Your task to perform on an android device: Open Google Maps and go to "Timeline" Image 0: 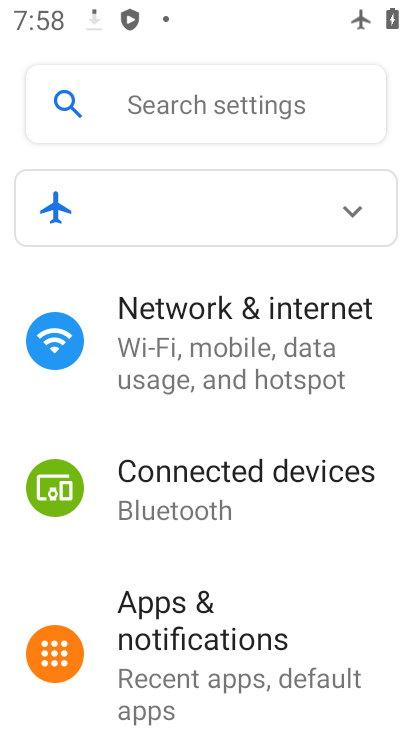
Step 0: press home button
Your task to perform on an android device: Open Google Maps and go to "Timeline" Image 1: 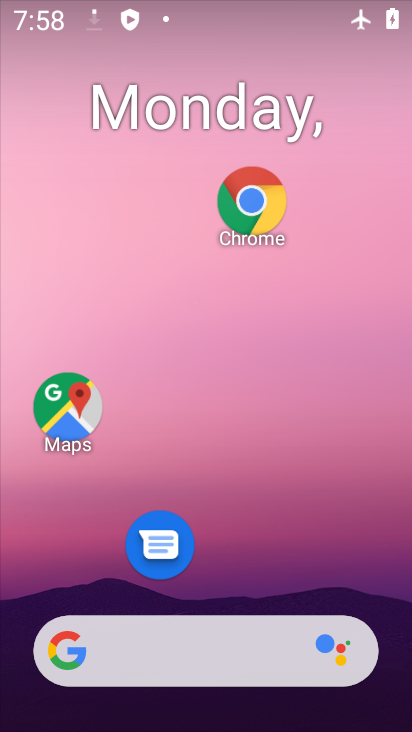
Step 1: click (76, 426)
Your task to perform on an android device: Open Google Maps and go to "Timeline" Image 2: 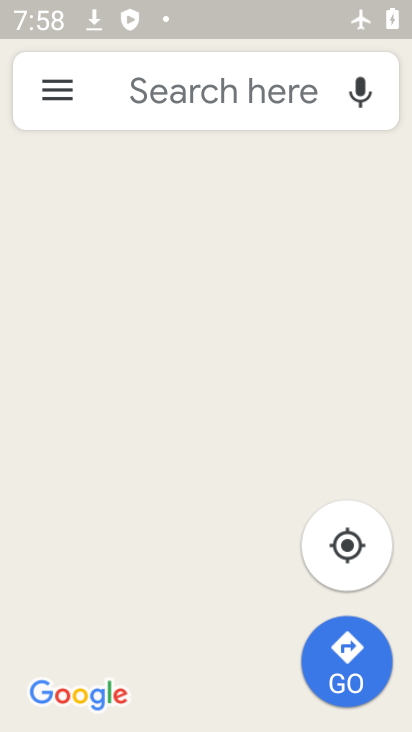
Step 2: click (62, 82)
Your task to perform on an android device: Open Google Maps and go to "Timeline" Image 3: 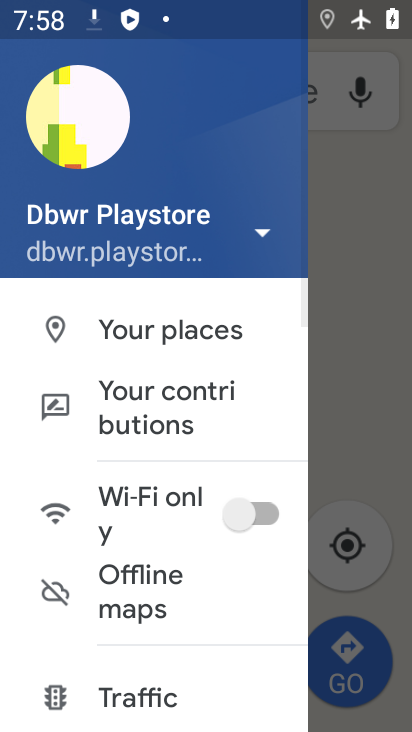
Step 3: click (165, 421)
Your task to perform on an android device: Open Google Maps and go to "Timeline" Image 4: 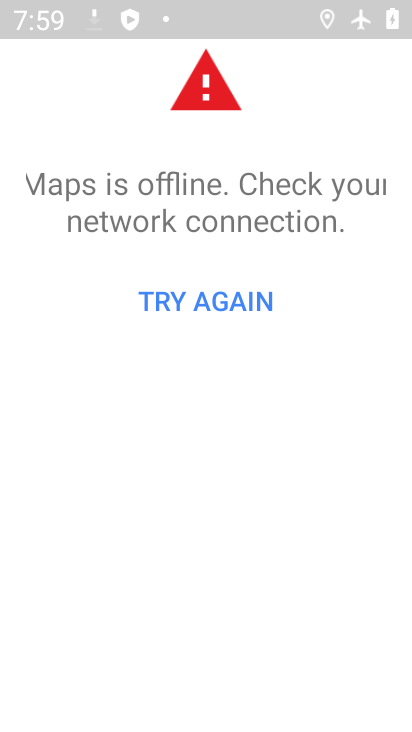
Step 4: task complete